Your task to perform on an android device: Open the web browser Image 0: 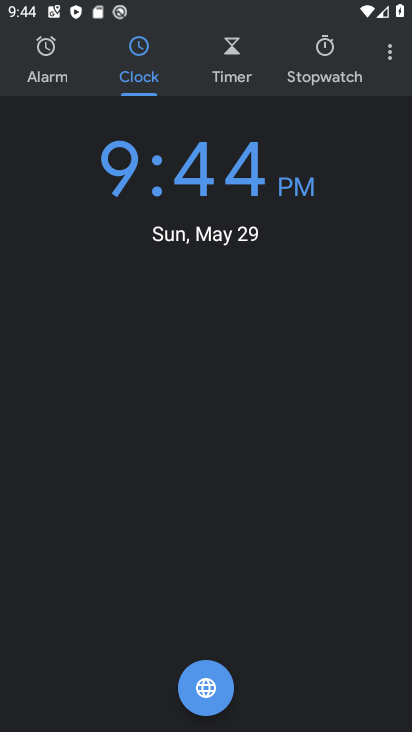
Step 0: press home button
Your task to perform on an android device: Open the web browser Image 1: 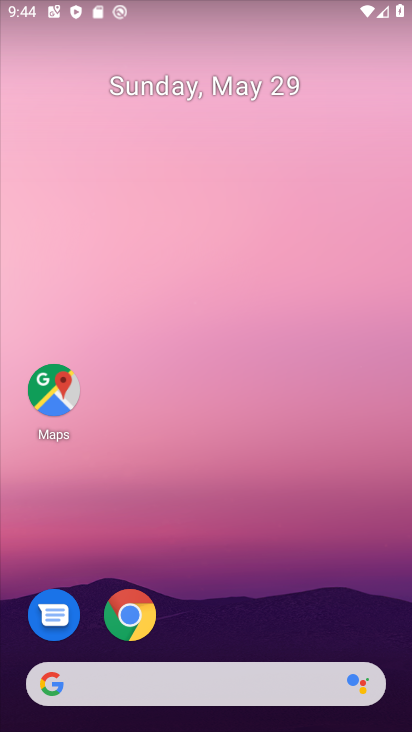
Step 1: click (212, 681)
Your task to perform on an android device: Open the web browser Image 2: 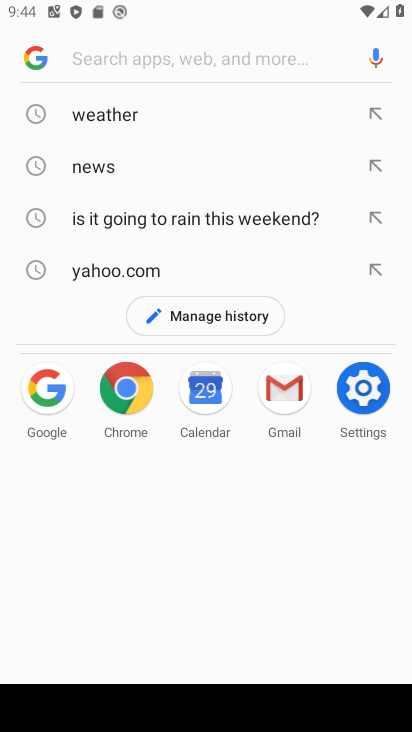
Step 2: task complete